Your task to perform on an android device: clear history in the chrome app Image 0: 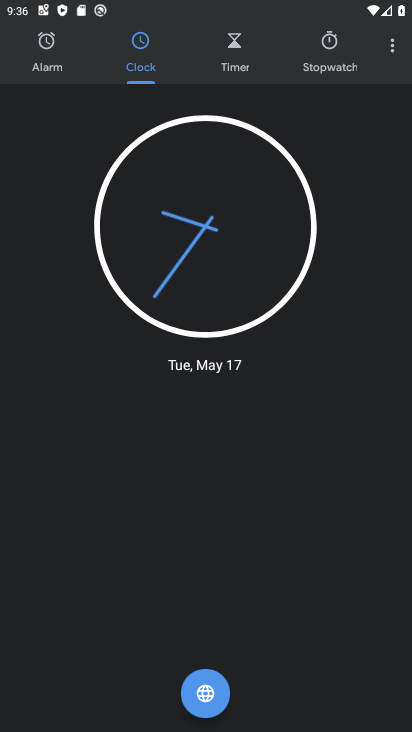
Step 0: press home button
Your task to perform on an android device: clear history in the chrome app Image 1: 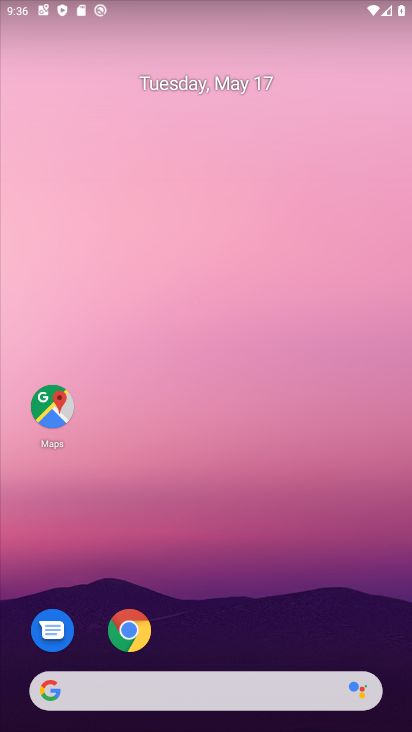
Step 1: click (130, 634)
Your task to perform on an android device: clear history in the chrome app Image 2: 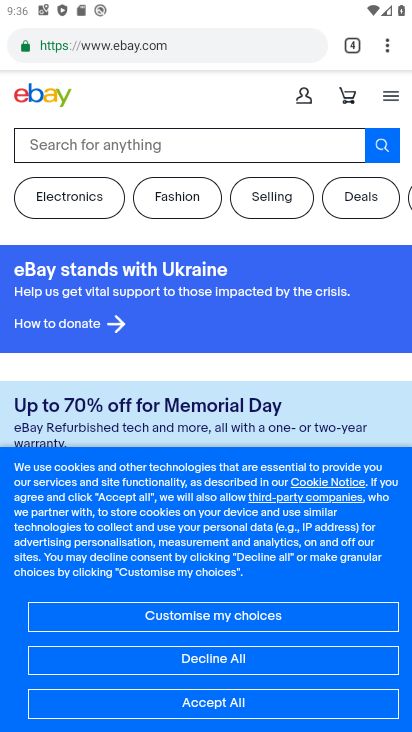
Step 2: click (391, 41)
Your task to perform on an android device: clear history in the chrome app Image 3: 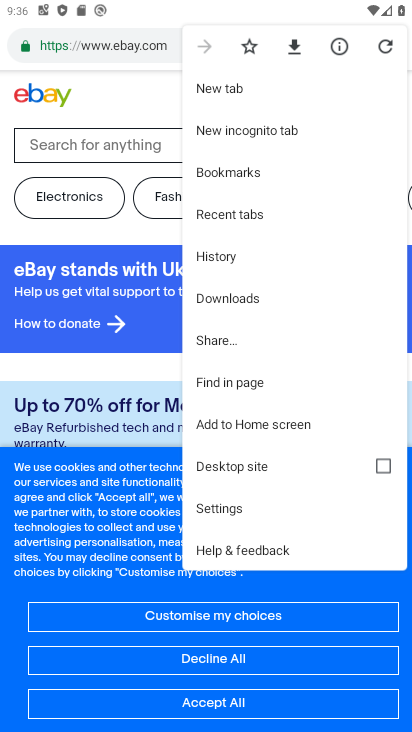
Step 3: click (229, 260)
Your task to perform on an android device: clear history in the chrome app Image 4: 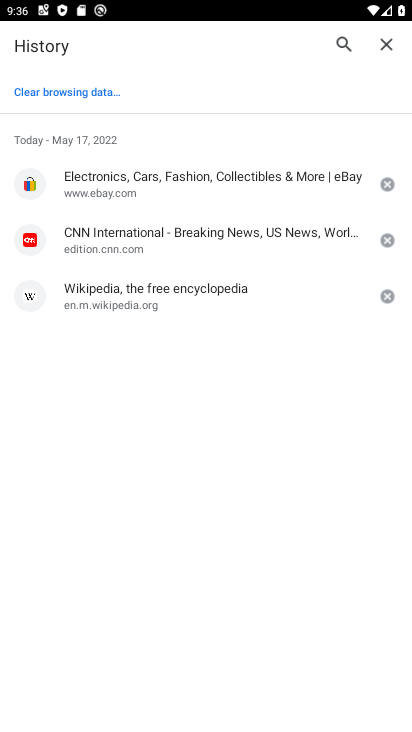
Step 4: click (67, 86)
Your task to perform on an android device: clear history in the chrome app Image 5: 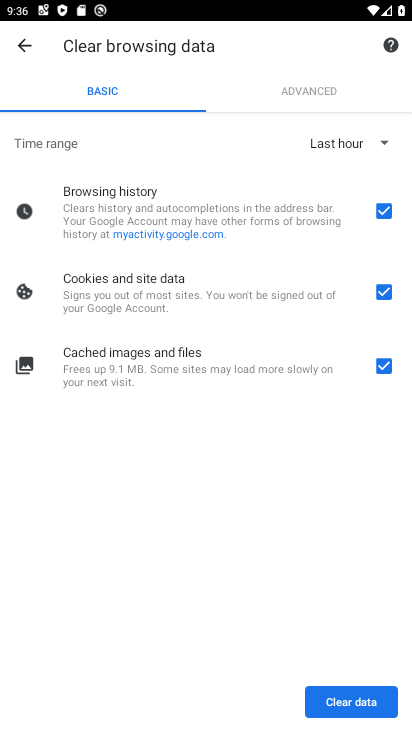
Step 5: click (322, 139)
Your task to perform on an android device: clear history in the chrome app Image 6: 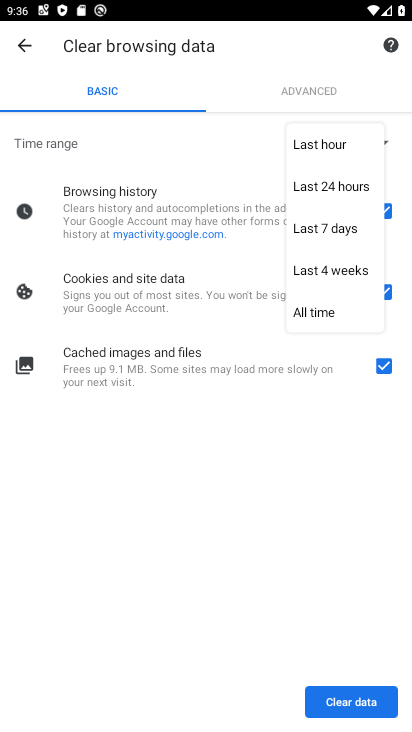
Step 6: click (346, 318)
Your task to perform on an android device: clear history in the chrome app Image 7: 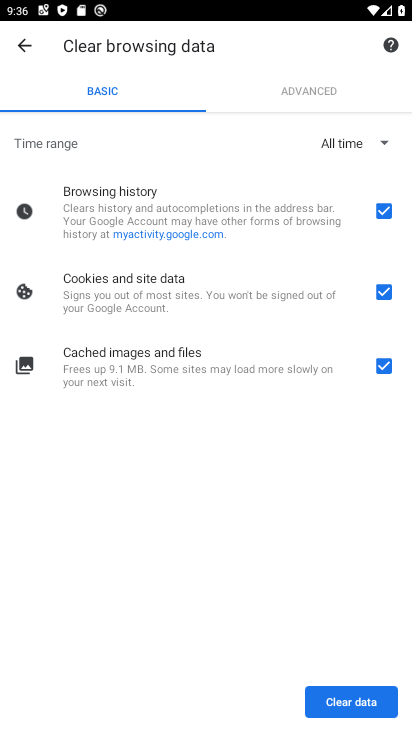
Step 7: click (359, 698)
Your task to perform on an android device: clear history in the chrome app Image 8: 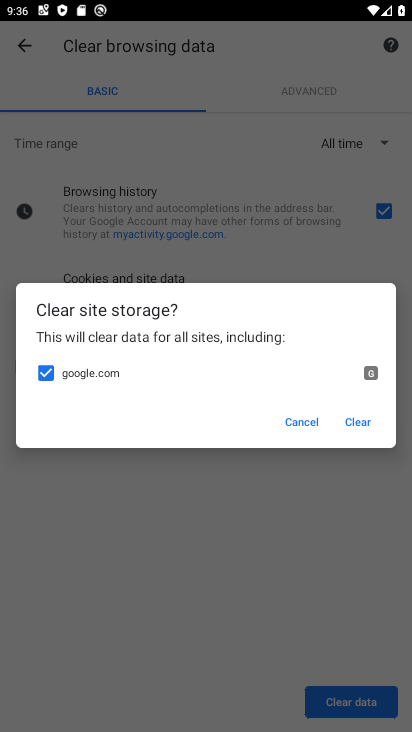
Step 8: click (356, 415)
Your task to perform on an android device: clear history in the chrome app Image 9: 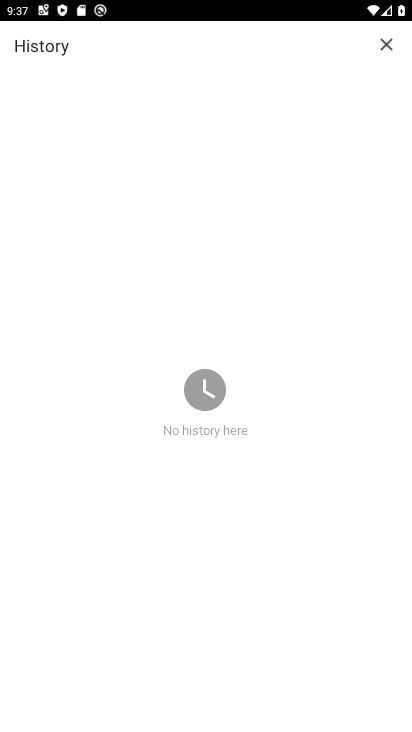
Step 9: task complete